Your task to perform on an android device: Go to privacy settings Image 0: 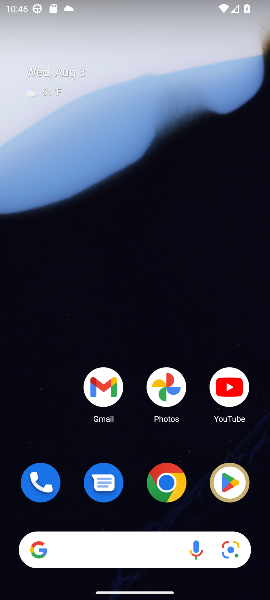
Step 0: drag from (141, 514) to (120, 149)
Your task to perform on an android device: Go to privacy settings Image 1: 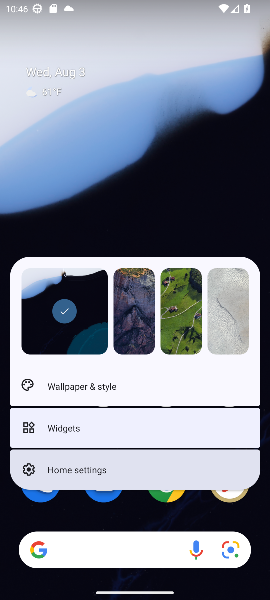
Step 1: click (164, 169)
Your task to perform on an android device: Go to privacy settings Image 2: 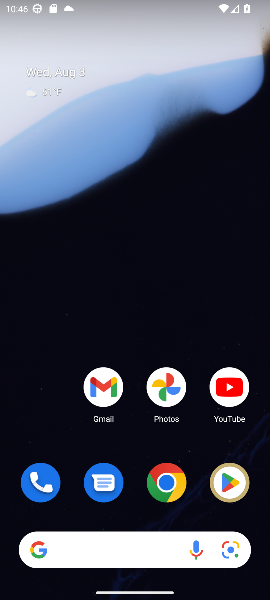
Step 2: drag from (81, 517) to (89, 107)
Your task to perform on an android device: Go to privacy settings Image 3: 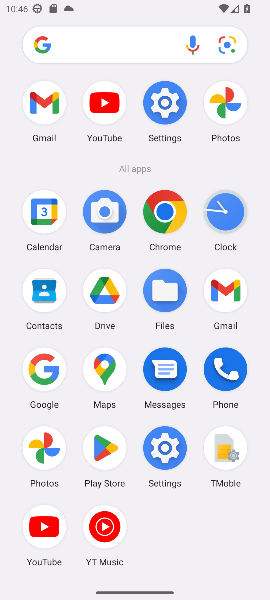
Step 3: click (160, 125)
Your task to perform on an android device: Go to privacy settings Image 4: 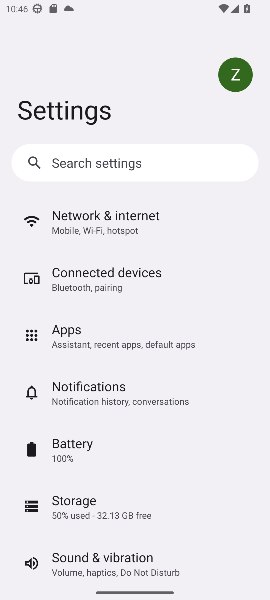
Step 4: drag from (94, 540) to (107, 259)
Your task to perform on an android device: Go to privacy settings Image 5: 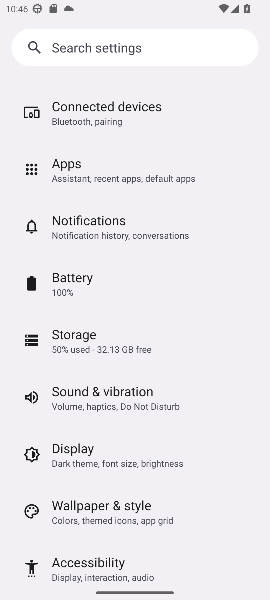
Step 5: drag from (102, 563) to (117, 278)
Your task to perform on an android device: Go to privacy settings Image 6: 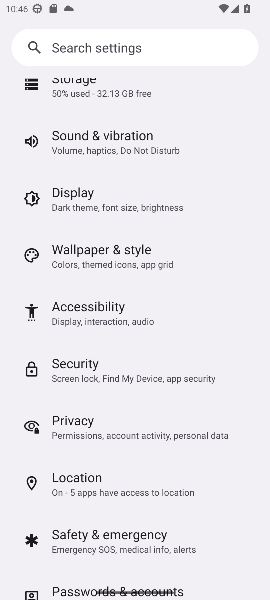
Step 6: drag from (101, 552) to (94, 411)
Your task to perform on an android device: Go to privacy settings Image 7: 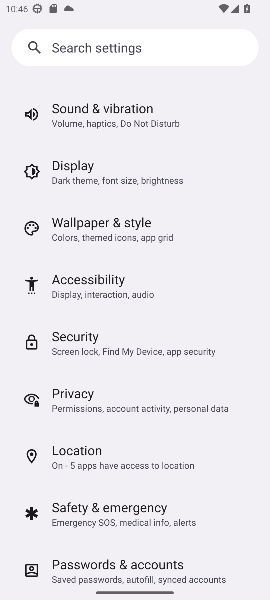
Step 7: click (94, 404)
Your task to perform on an android device: Go to privacy settings Image 8: 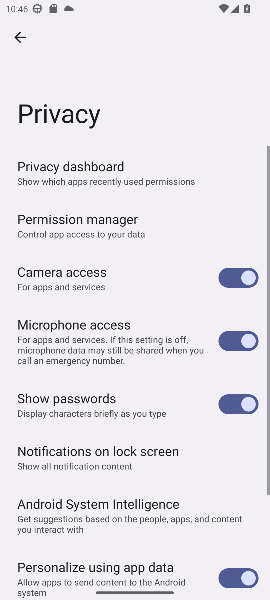
Step 8: task complete